Your task to perform on an android device: set the timer Image 0: 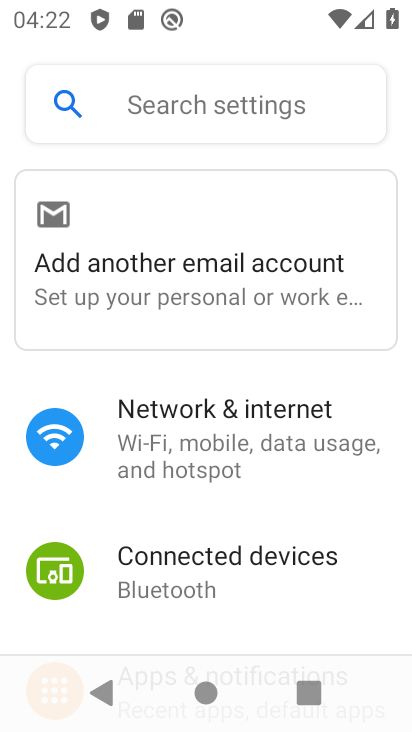
Step 0: press home button
Your task to perform on an android device: set the timer Image 1: 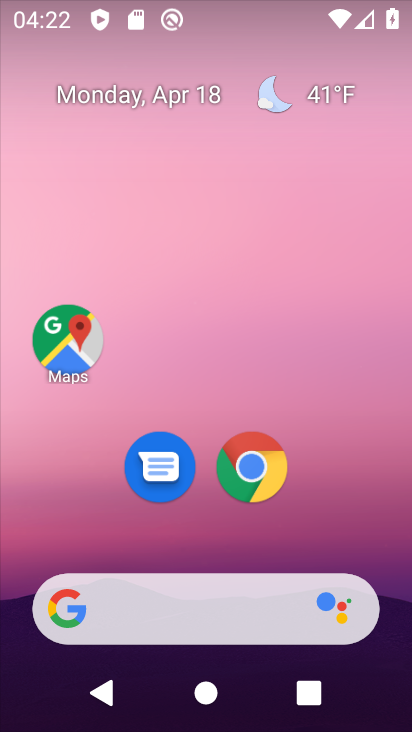
Step 1: drag from (196, 510) to (190, 127)
Your task to perform on an android device: set the timer Image 2: 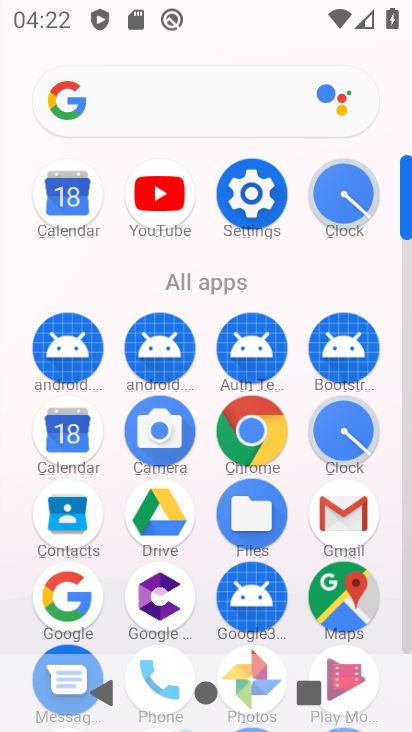
Step 2: click (328, 213)
Your task to perform on an android device: set the timer Image 3: 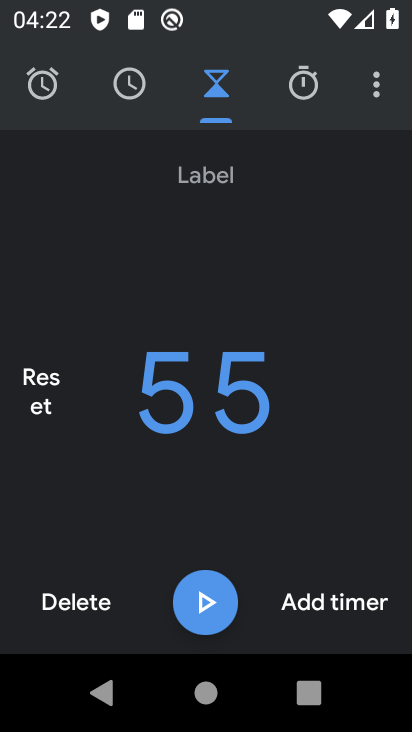
Step 3: click (304, 601)
Your task to perform on an android device: set the timer Image 4: 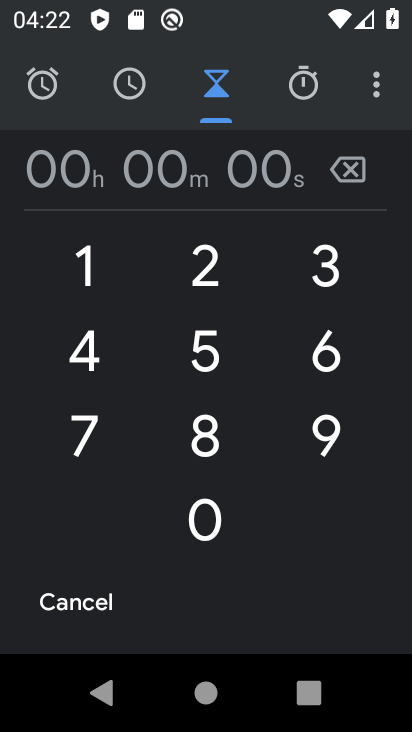
Step 4: click (249, 176)
Your task to perform on an android device: set the timer Image 5: 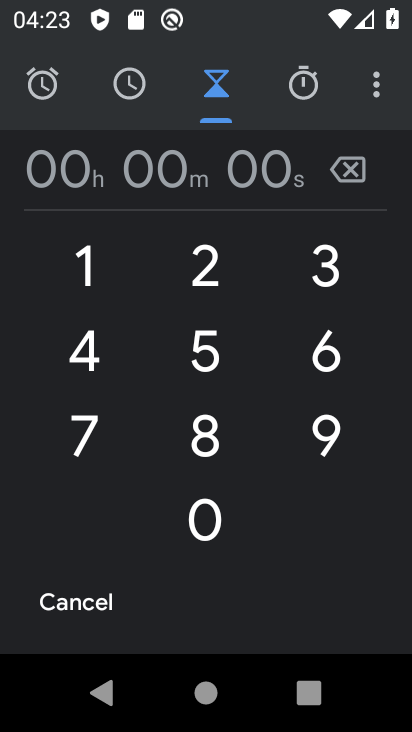
Step 5: type "56"
Your task to perform on an android device: set the timer Image 6: 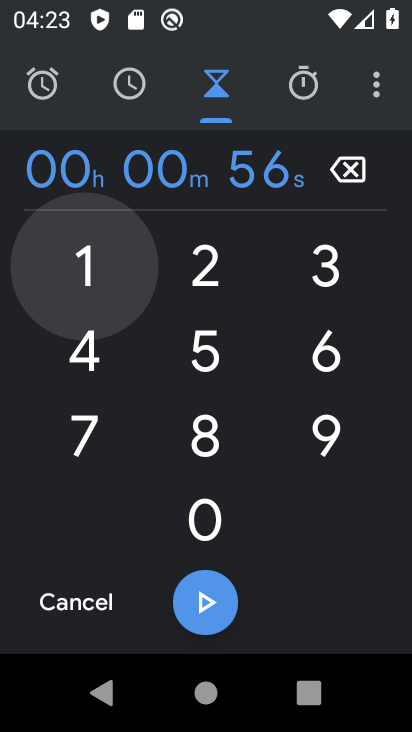
Step 6: click (184, 603)
Your task to perform on an android device: set the timer Image 7: 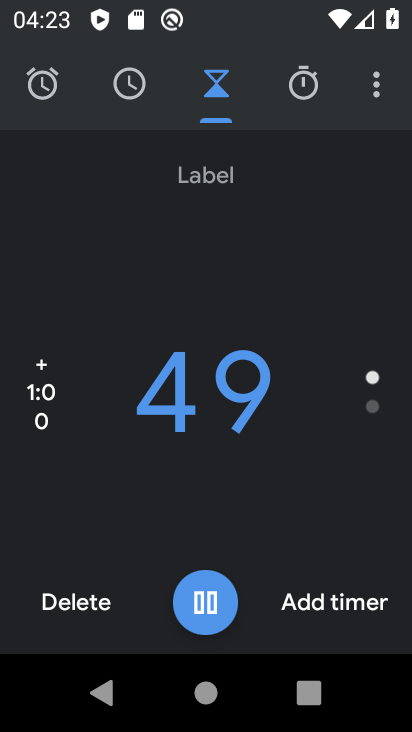
Step 7: task complete